Your task to perform on an android device: Search for "usb-b" on walmart, select the first entry, and add it to the cart. Image 0: 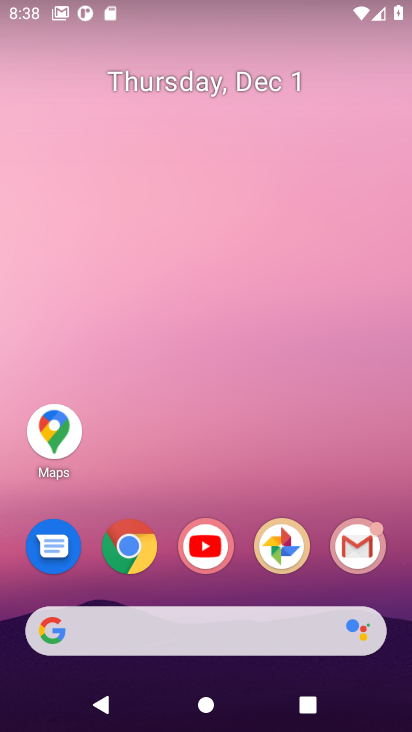
Step 0: click (134, 545)
Your task to perform on an android device: Search for "usb-b" on walmart, select the first entry, and add it to the cart. Image 1: 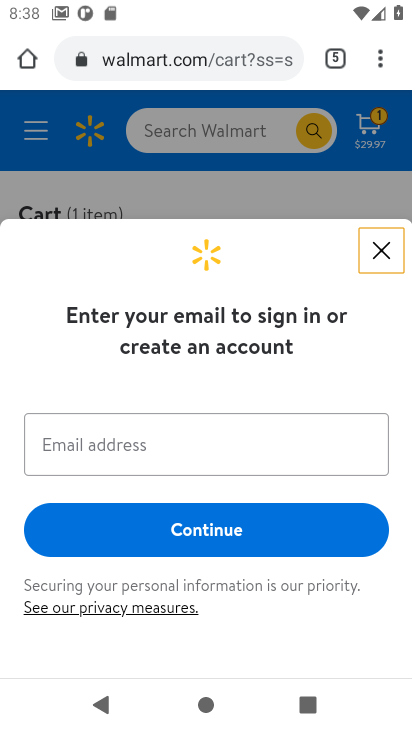
Step 1: click (383, 245)
Your task to perform on an android device: Search for "usb-b" on walmart, select the first entry, and add it to the cart. Image 2: 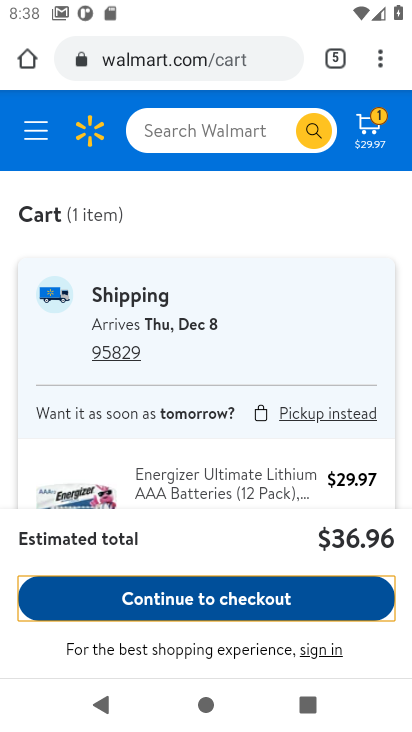
Step 2: click (200, 128)
Your task to perform on an android device: Search for "usb-b" on walmart, select the first entry, and add it to the cart. Image 3: 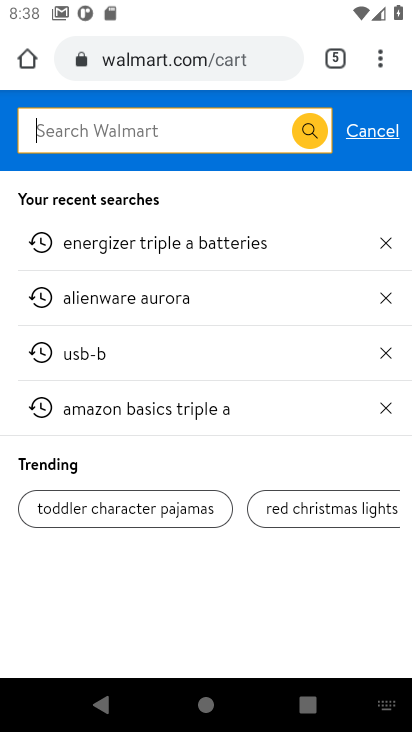
Step 3: type "usb-b"
Your task to perform on an android device: Search for "usb-b" on walmart, select the first entry, and add it to the cart. Image 4: 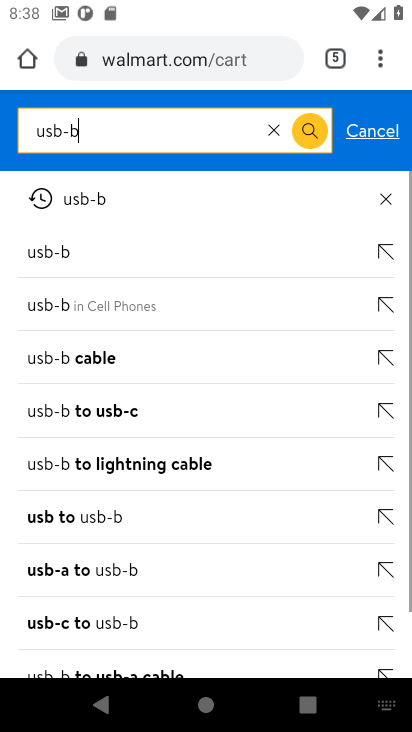
Step 4: click (72, 202)
Your task to perform on an android device: Search for "usb-b" on walmart, select the first entry, and add it to the cart. Image 5: 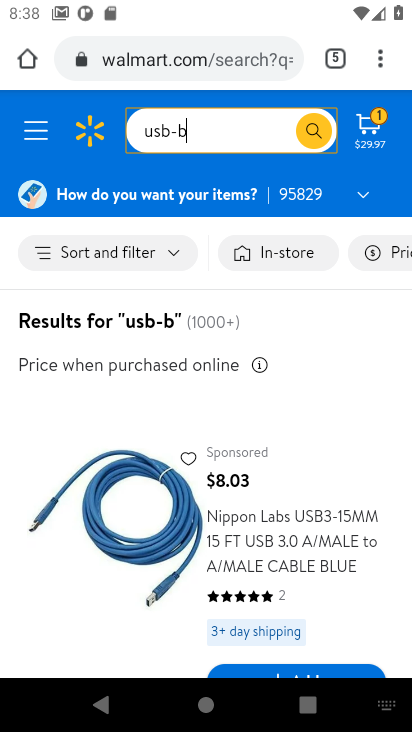
Step 5: drag from (189, 438) to (172, 307)
Your task to perform on an android device: Search for "usb-b" on walmart, select the first entry, and add it to the cart. Image 6: 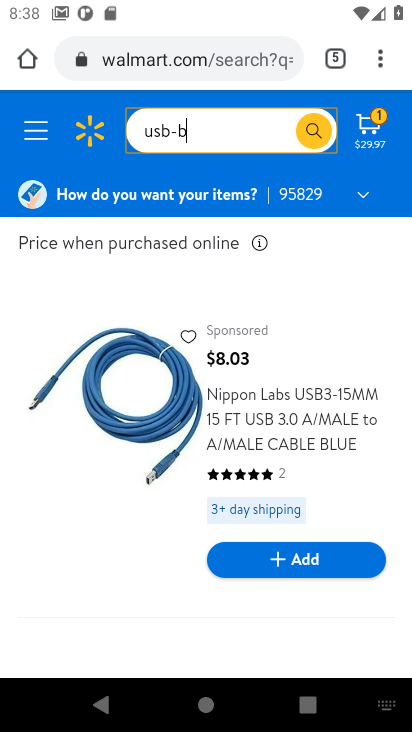
Step 6: drag from (186, 454) to (199, 392)
Your task to perform on an android device: Search for "usb-b" on walmart, select the first entry, and add it to the cart. Image 7: 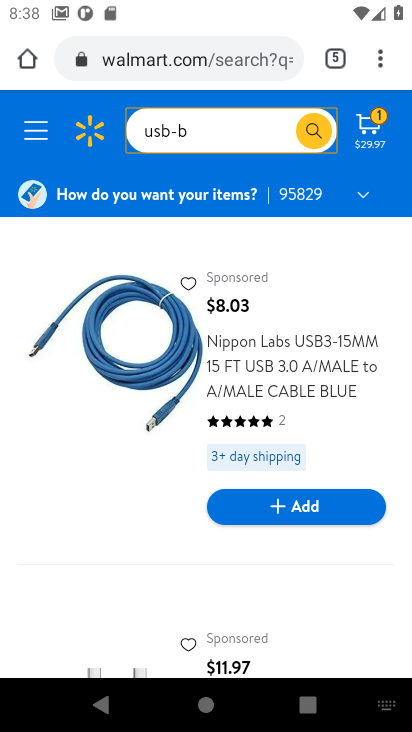
Step 7: click (348, 374)
Your task to perform on an android device: Search for "usb-b" on walmart, select the first entry, and add it to the cart. Image 8: 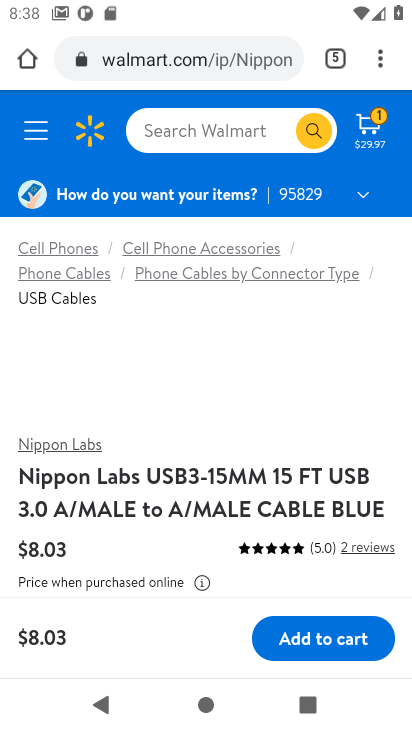
Step 8: task complete